Your task to perform on an android device: turn on sleep mode Image 0: 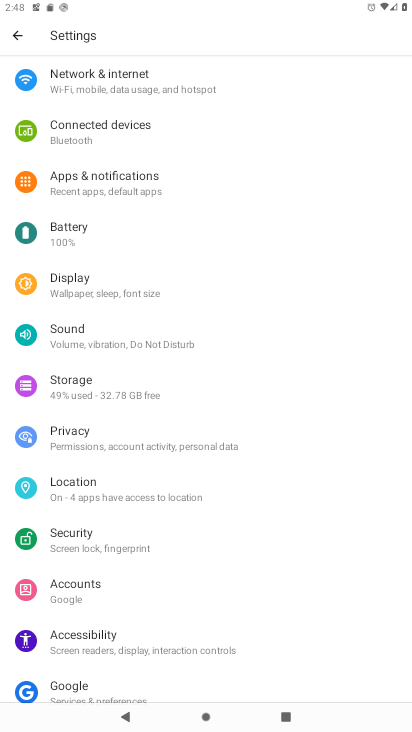
Step 0: press home button
Your task to perform on an android device: turn on sleep mode Image 1: 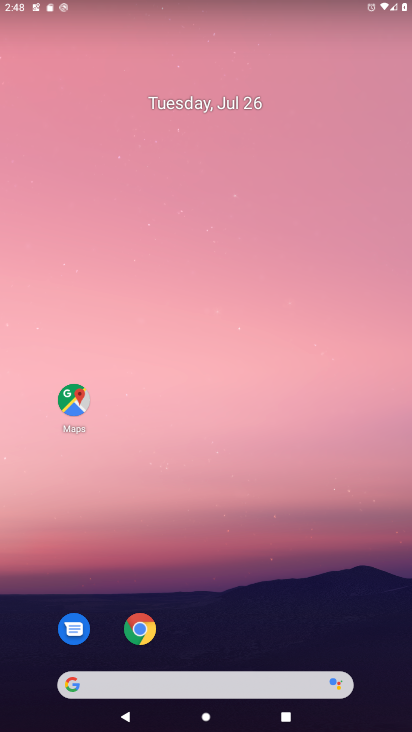
Step 1: drag from (256, 637) to (240, 318)
Your task to perform on an android device: turn on sleep mode Image 2: 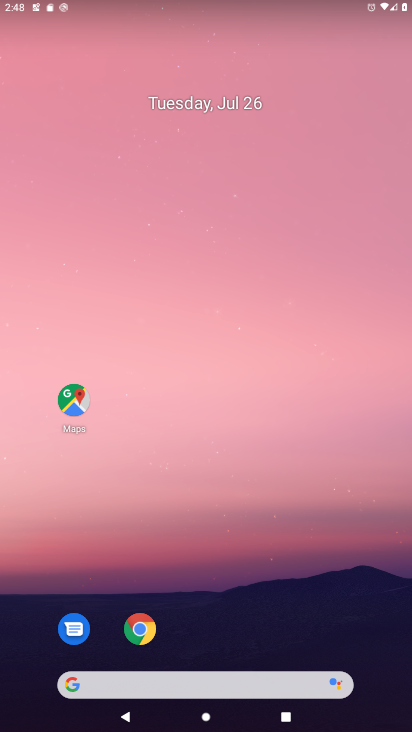
Step 2: drag from (204, 652) to (166, 255)
Your task to perform on an android device: turn on sleep mode Image 3: 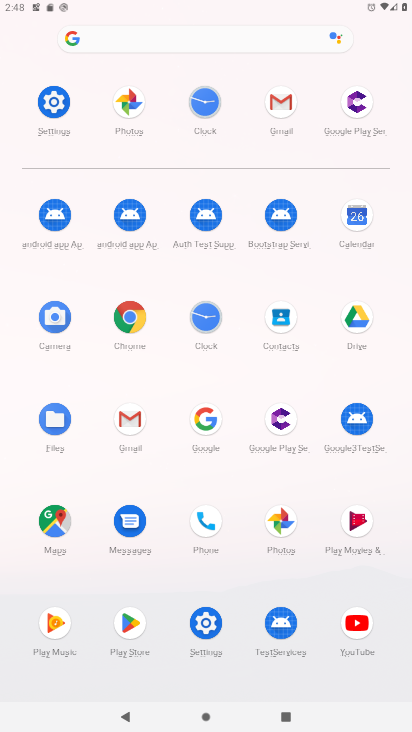
Step 3: click (198, 636)
Your task to perform on an android device: turn on sleep mode Image 4: 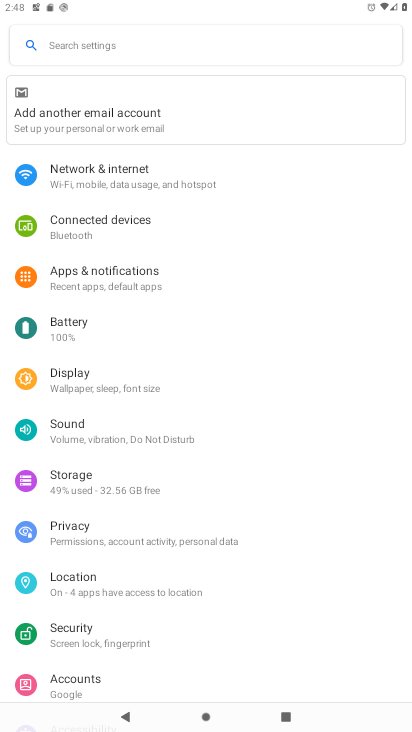
Step 4: click (156, 381)
Your task to perform on an android device: turn on sleep mode Image 5: 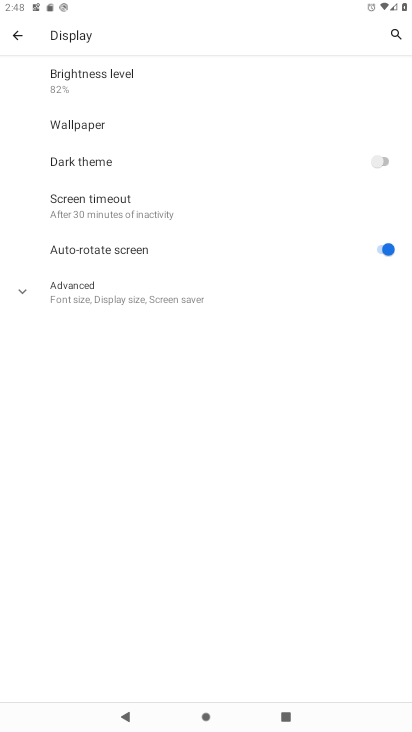
Step 5: click (116, 205)
Your task to perform on an android device: turn on sleep mode Image 6: 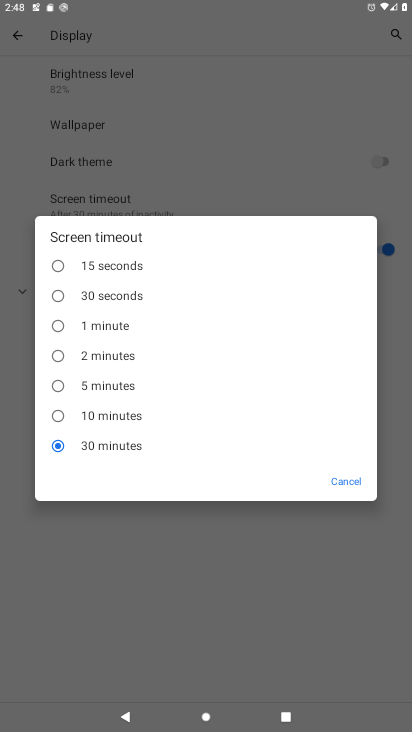
Step 6: click (137, 335)
Your task to perform on an android device: turn on sleep mode Image 7: 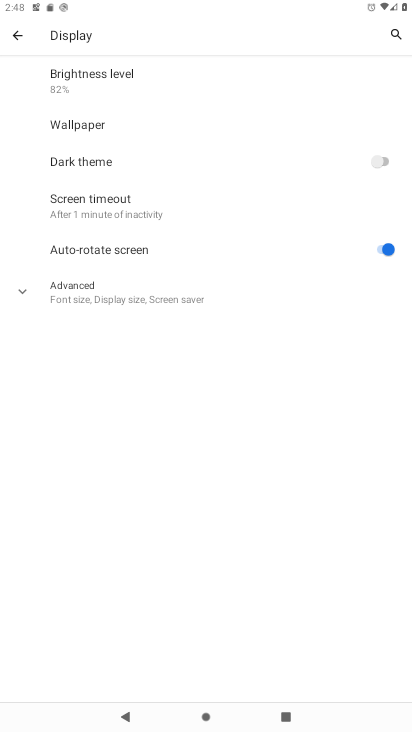
Step 7: task complete